Your task to perform on an android device: remove spam from my inbox in the gmail app Image 0: 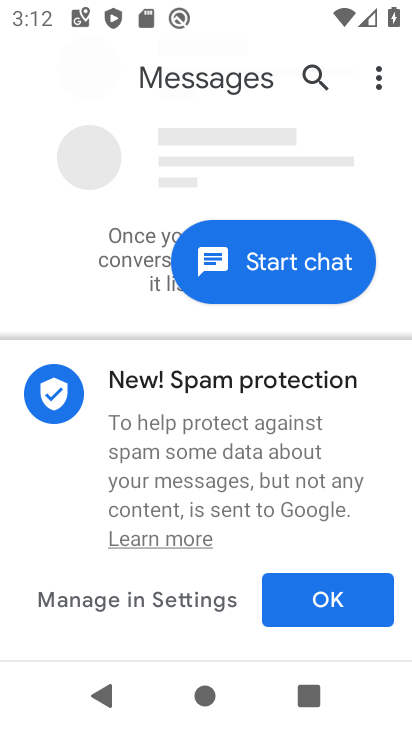
Step 0: press back button
Your task to perform on an android device: remove spam from my inbox in the gmail app Image 1: 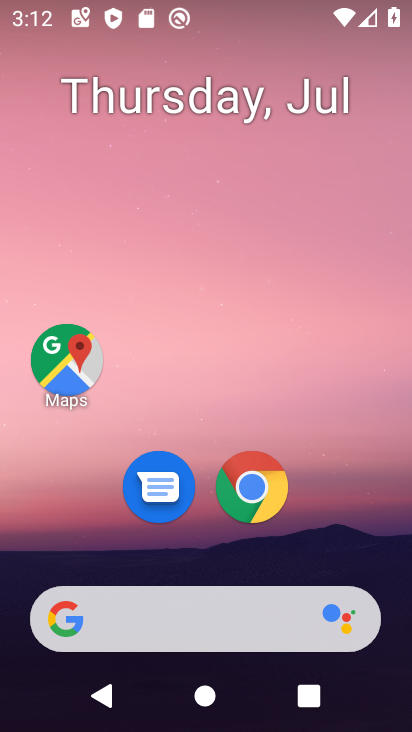
Step 1: drag from (190, 551) to (288, 7)
Your task to perform on an android device: remove spam from my inbox in the gmail app Image 2: 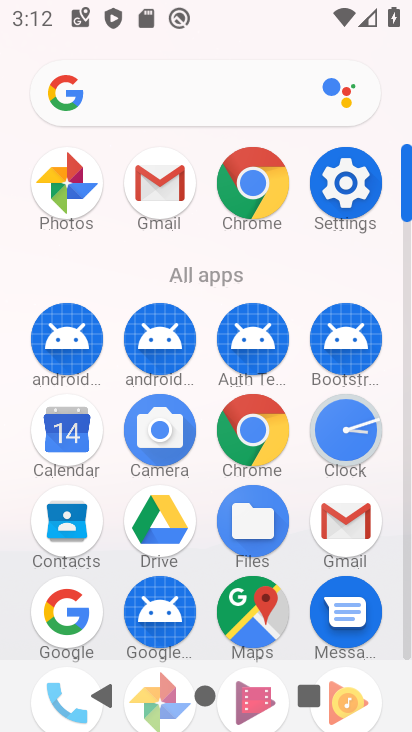
Step 2: click (178, 176)
Your task to perform on an android device: remove spam from my inbox in the gmail app Image 3: 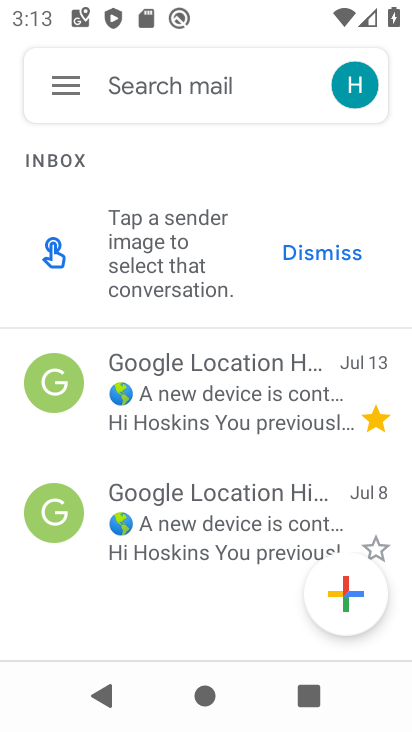
Step 3: click (51, 82)
Your task to perform on an android device: remove spam from my inbox in the gmail app Image 4: 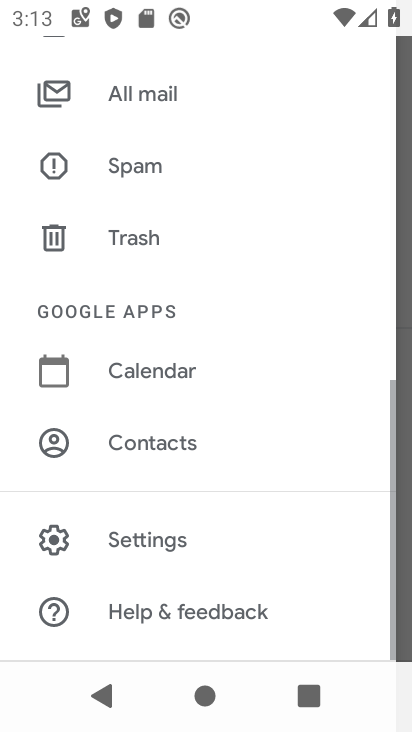
Step 4: click (150, 166)
Your task to perform on an android device: remove spam from my inbox in the gmail app Image 5: 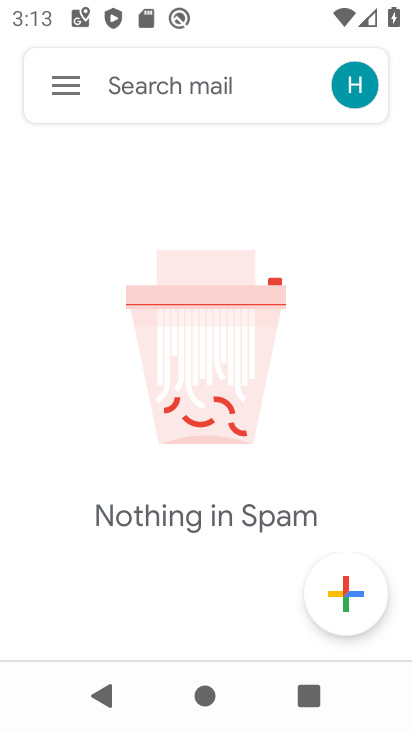
Step 5: task complete